Your task to perform on an android device: Check the news Image 0: 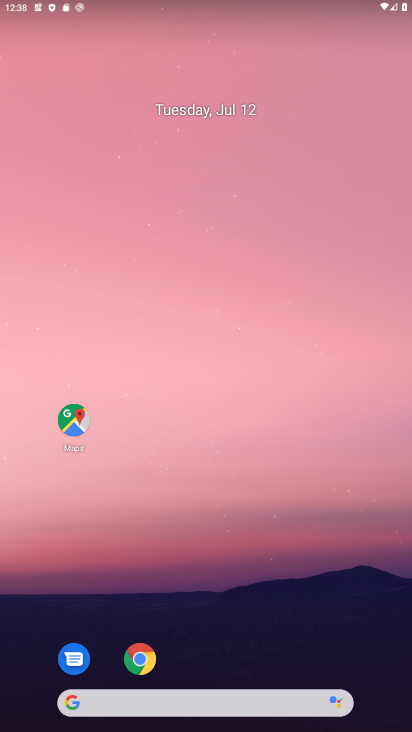
Step 0: drag from (205, 683) to (205, 88)
Your task to perform on an android device: Check the news Image 1: 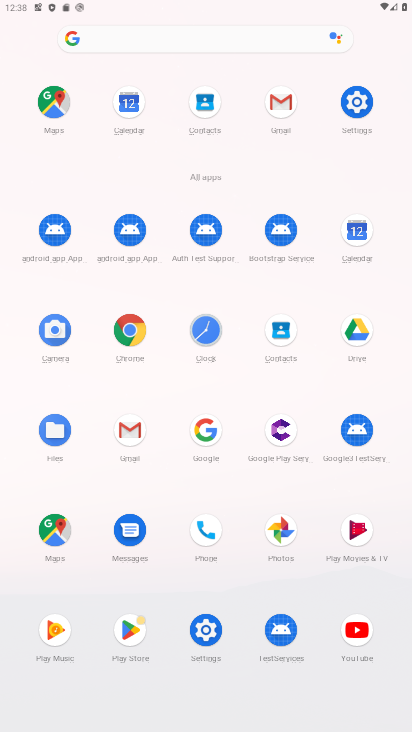
Step 1: click (202, 427)
Your task to perform on an android device: Check the news Image 2: 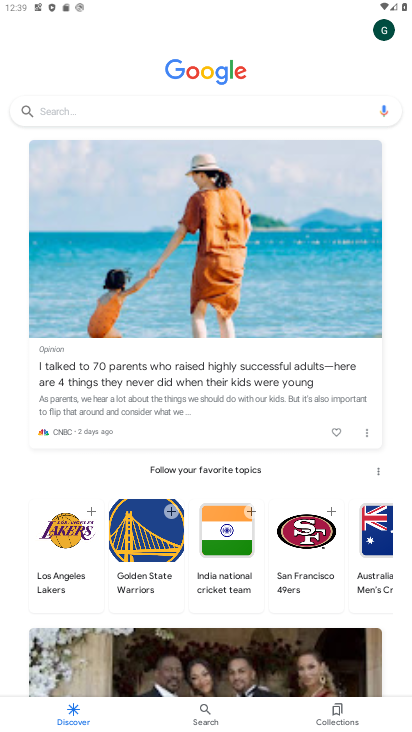
Step 2: task complete